Your task to perform on an android device: When is my next meeting? Image 0: 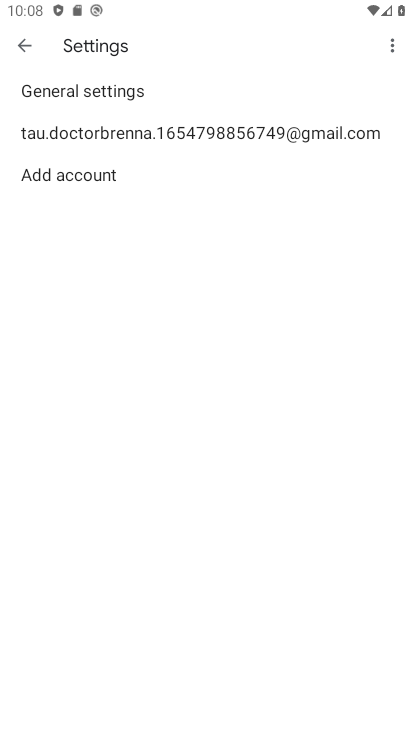
Step 0: press home button
Your task to perform on an android device: When is my next meeting? Image 1: 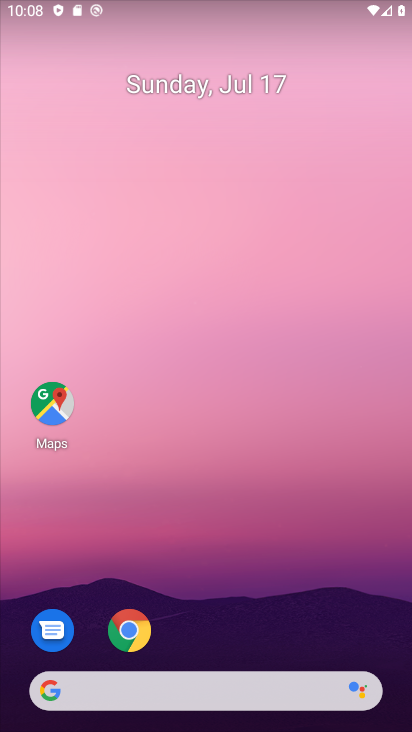
Step 1: drag from (337, 626) to (332, 76)
Your task to perform on an android device: When is my next meeting? Image 2: 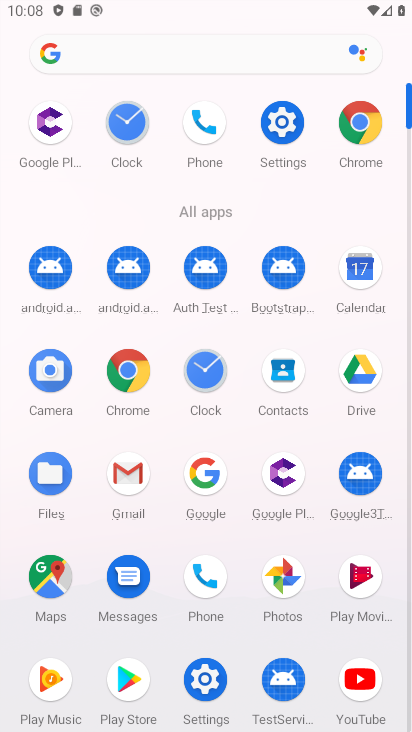
Step 2: click (365, 268)
Your task to perform on an android device: When is my next meeting? Image 3: 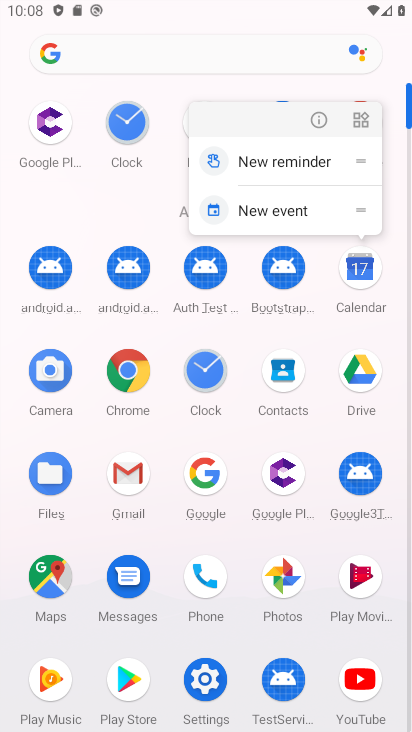
Step 3: click (365, 268)
Your task to perform on an android device: When is my next meeting? Image 4: 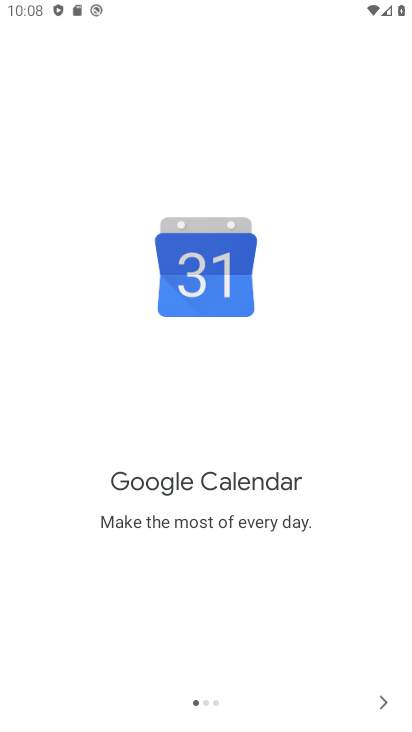
Step 4: click (382, 705)
Your task to perform on an android device: When is my next meeting? Image 5: 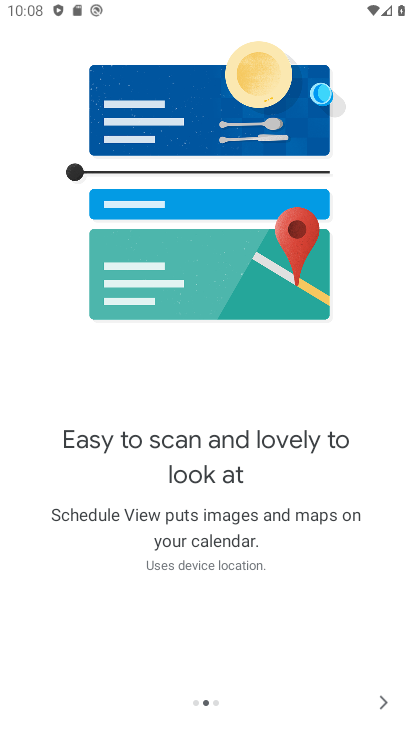
Step 5: click (379, 698)
Your task to perform on an android device: When is my next meeting? Image 6: 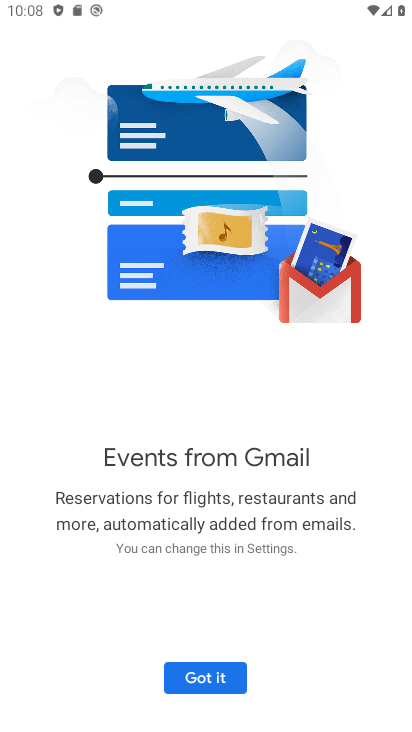
Step 6: click (196, 680)
Your task to perform on an android device: When is my next meeting? Image 7: 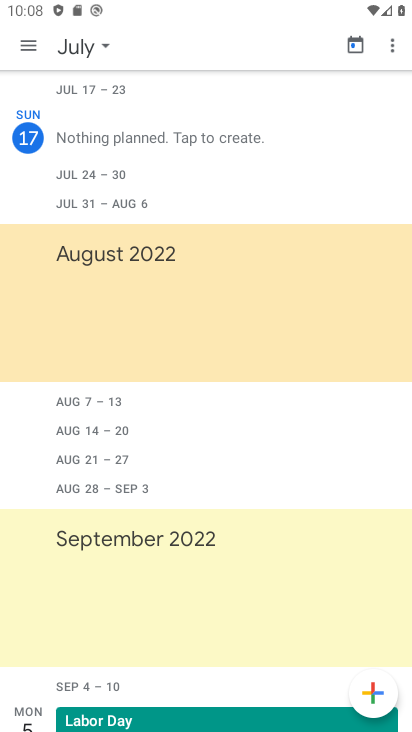
Step 7: click (109, 45)
Your task to perform on an android device: When is my next meeting? Image 8: 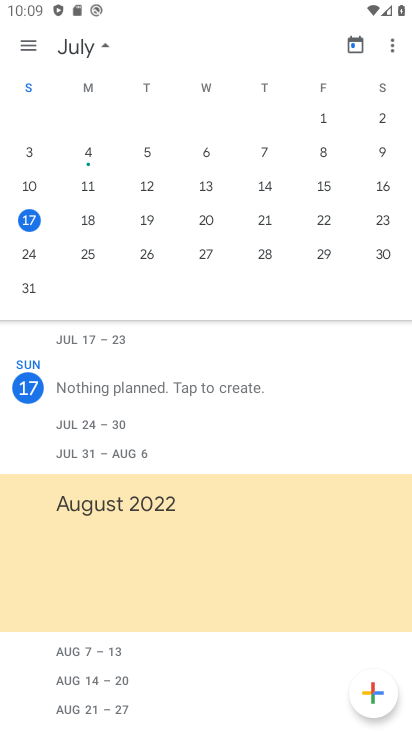
Step 8: task complete